Your task to perform on an android device: Go to battery settings Image 0: 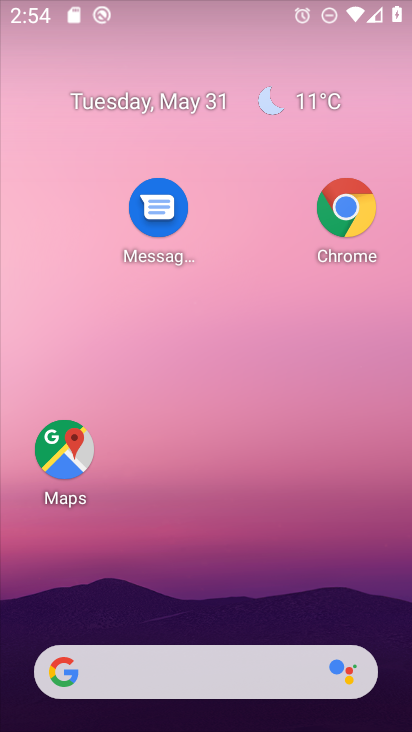
Step 0: drag from (165, 625) to (243, 99)
Your task to perform on an android device: Go to battery settings Image 1: 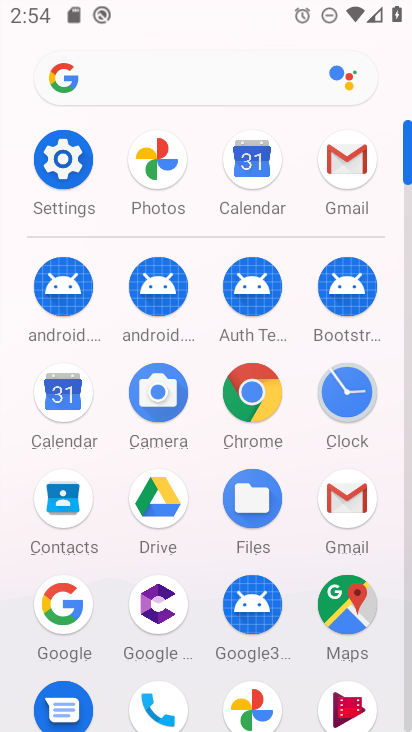
Step 1: click (59, 158)
Your task to perform on an android device: Go to battery settings Image 2: 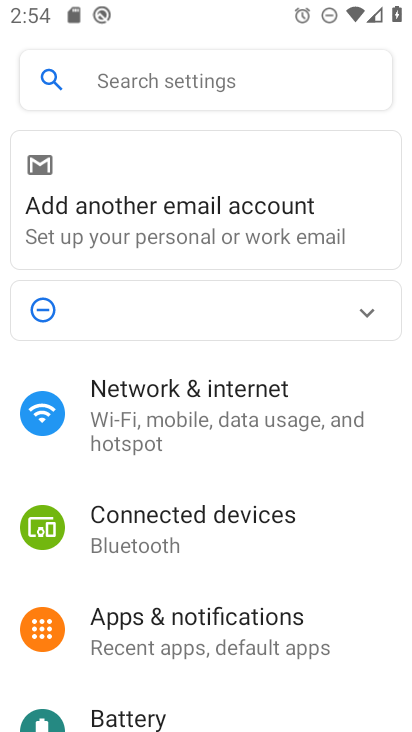
Step 2: click (167, 703)
Your task to perform on an android device: Go to battery settings Image 3: 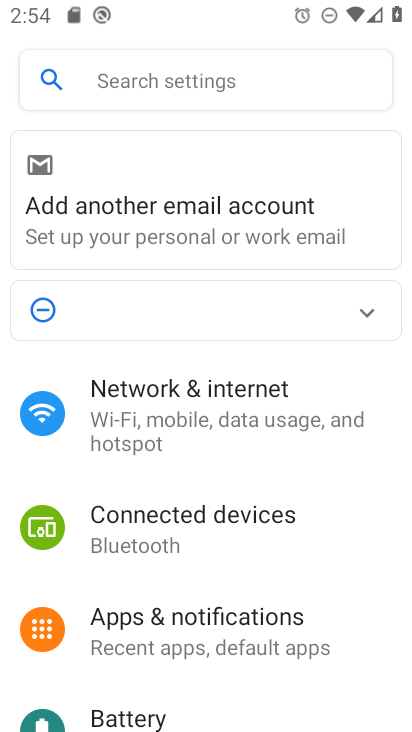
Step 3: click (167, 703)
Your task to perform on an android device: Go to battery settings Image 4: 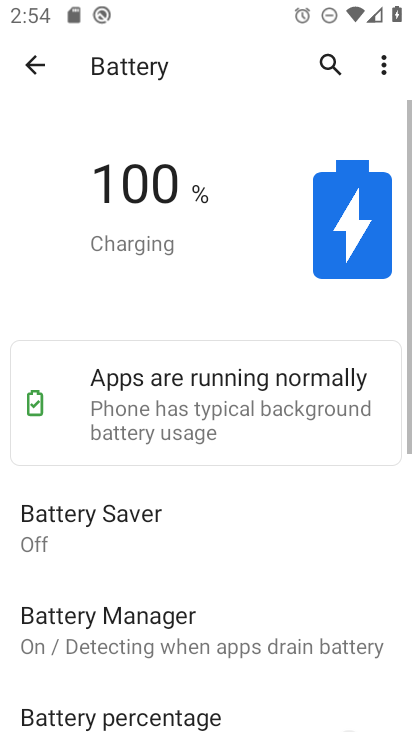
Step 4: task complete